Your task to perform on an android device: open app "Facebook" Image 0: 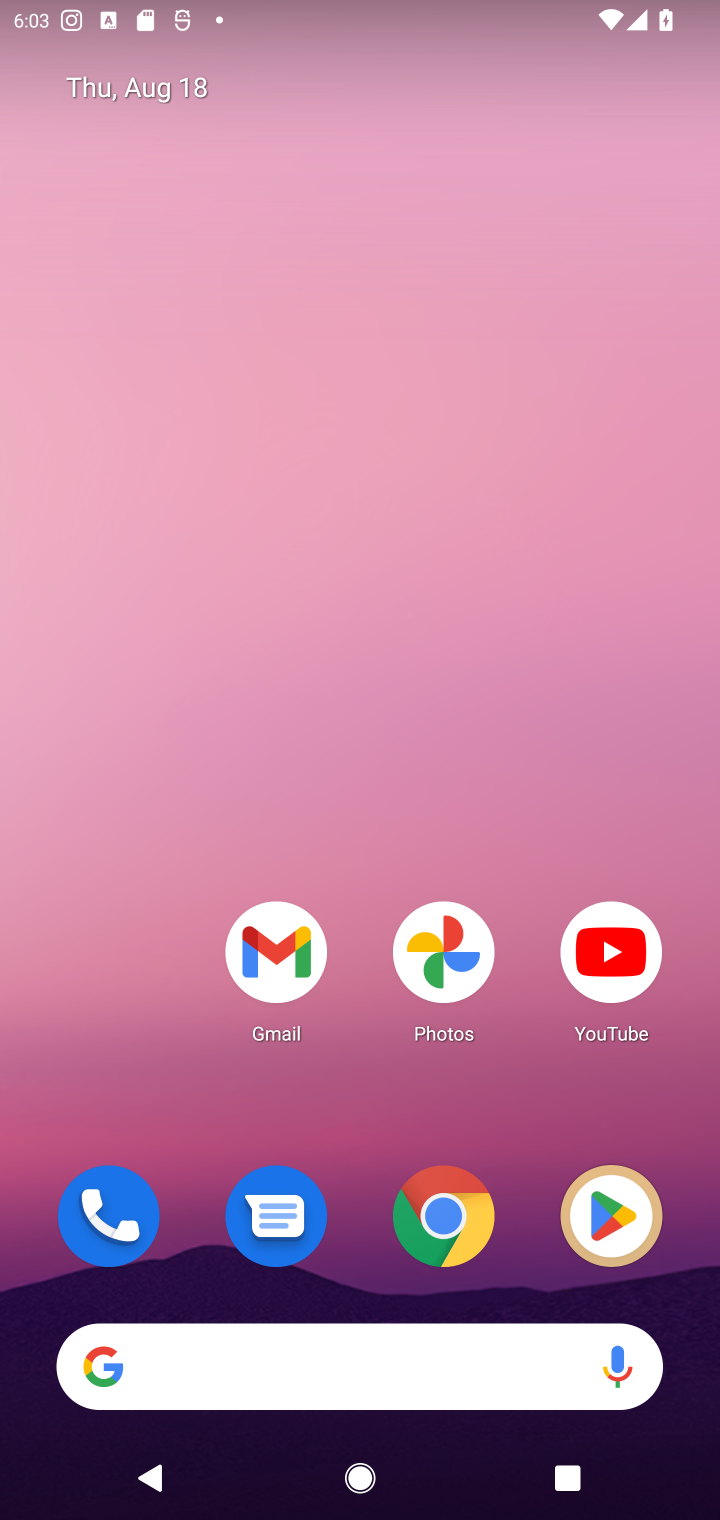
Step 0: click (589, 1186)
Your task to perform on an android device: open app "Facebook" Image 1: 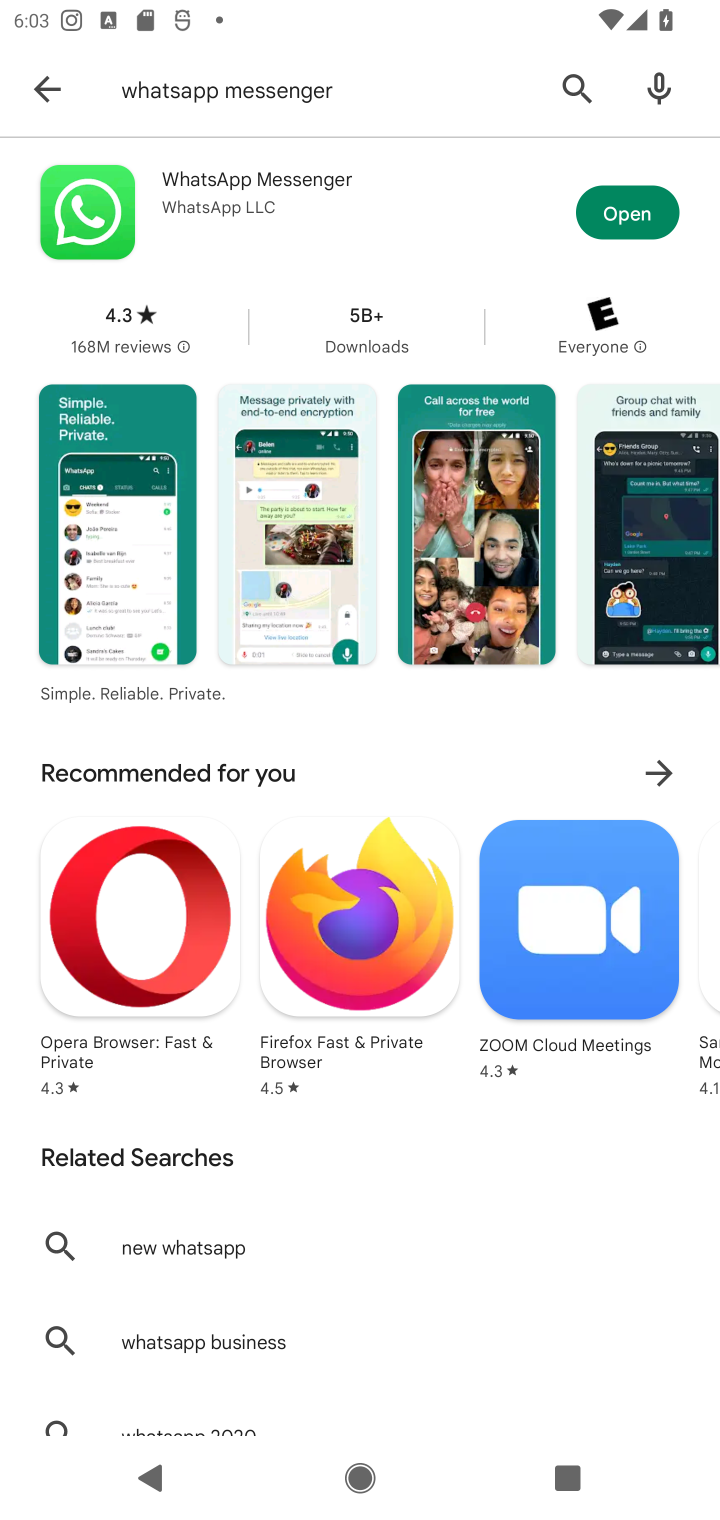
Step 1: click (575, 84)
Your task to perform on an android device: open app "Facebook" Image 2: 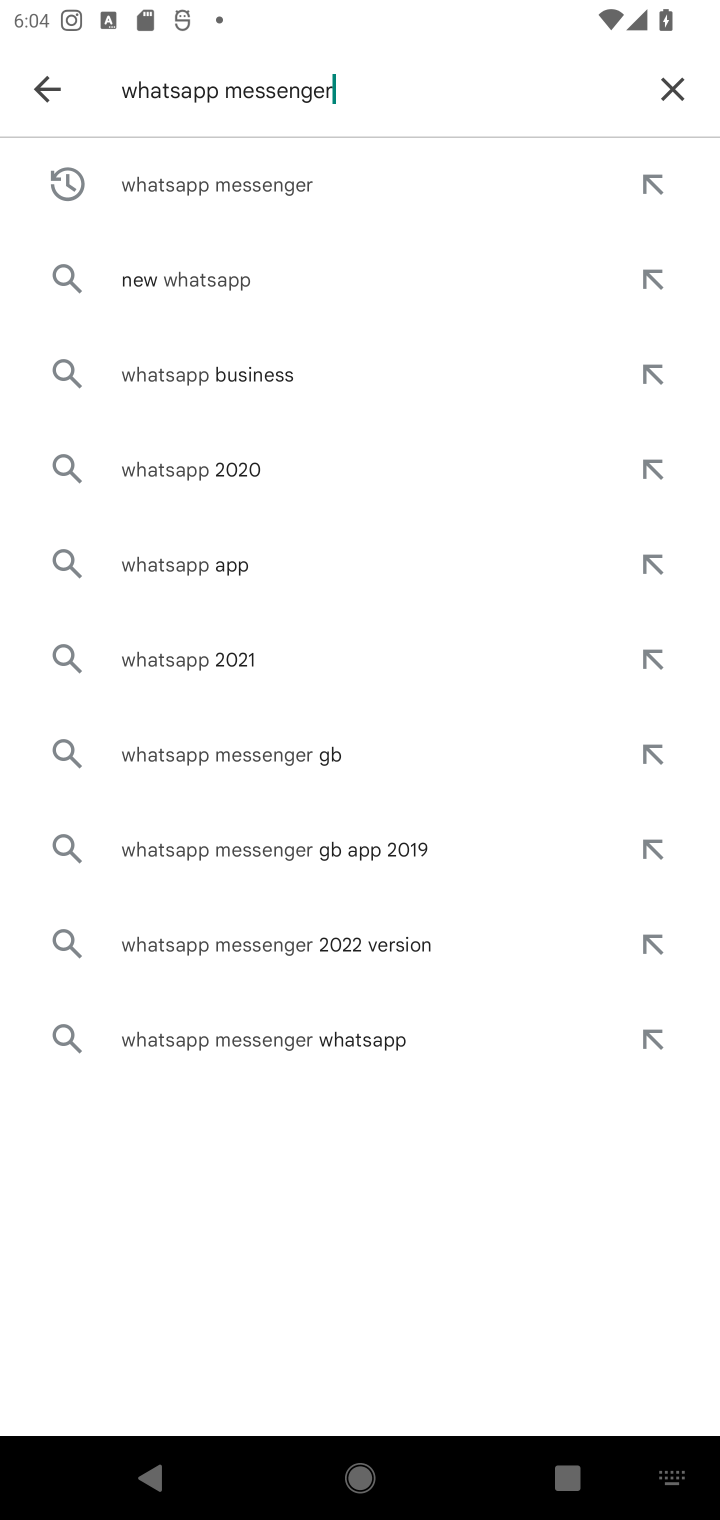
Step 2: click (663, 81)
Your task to perform on an android device: open app "Facebook" Image 3: 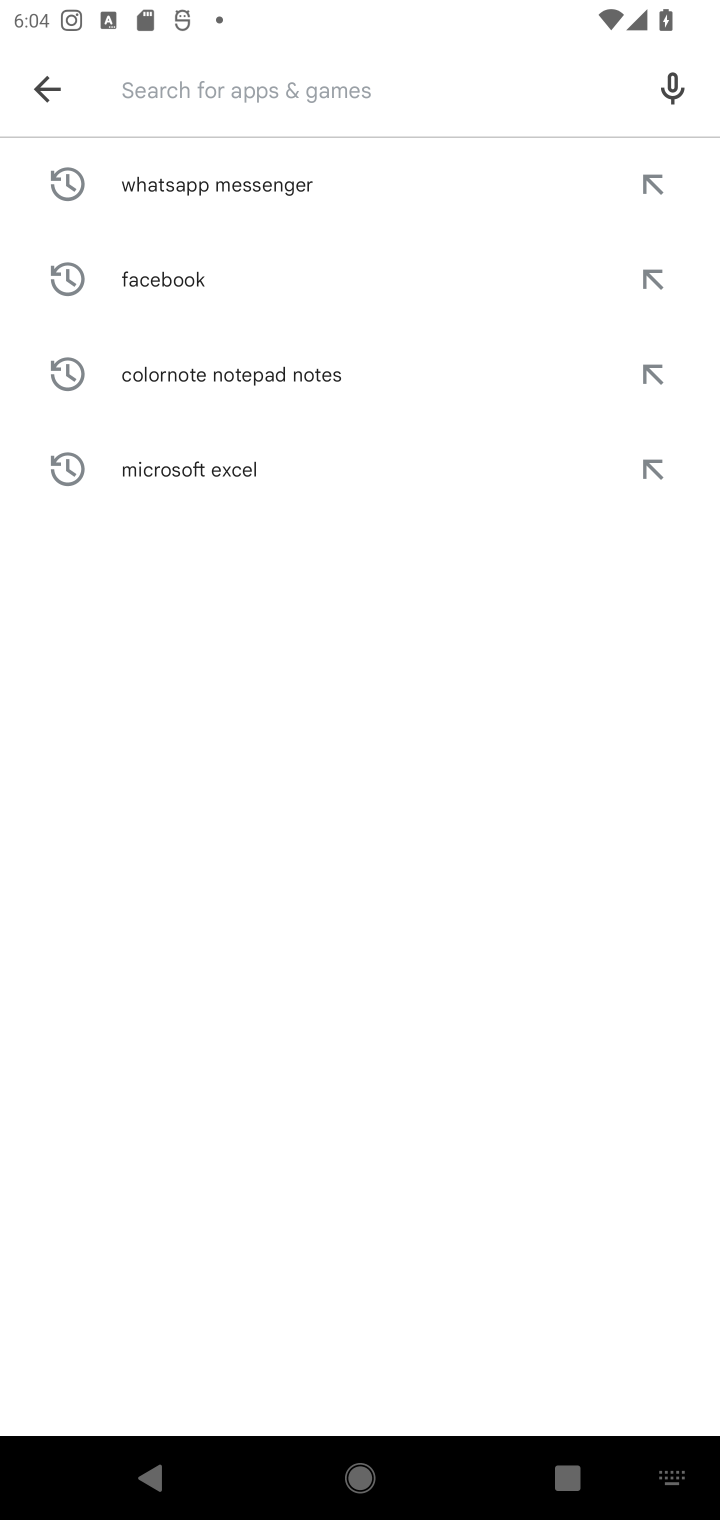
Step 3: type "Facebook"
Your task to perform on an android device: open app "Facebook" Image 4: 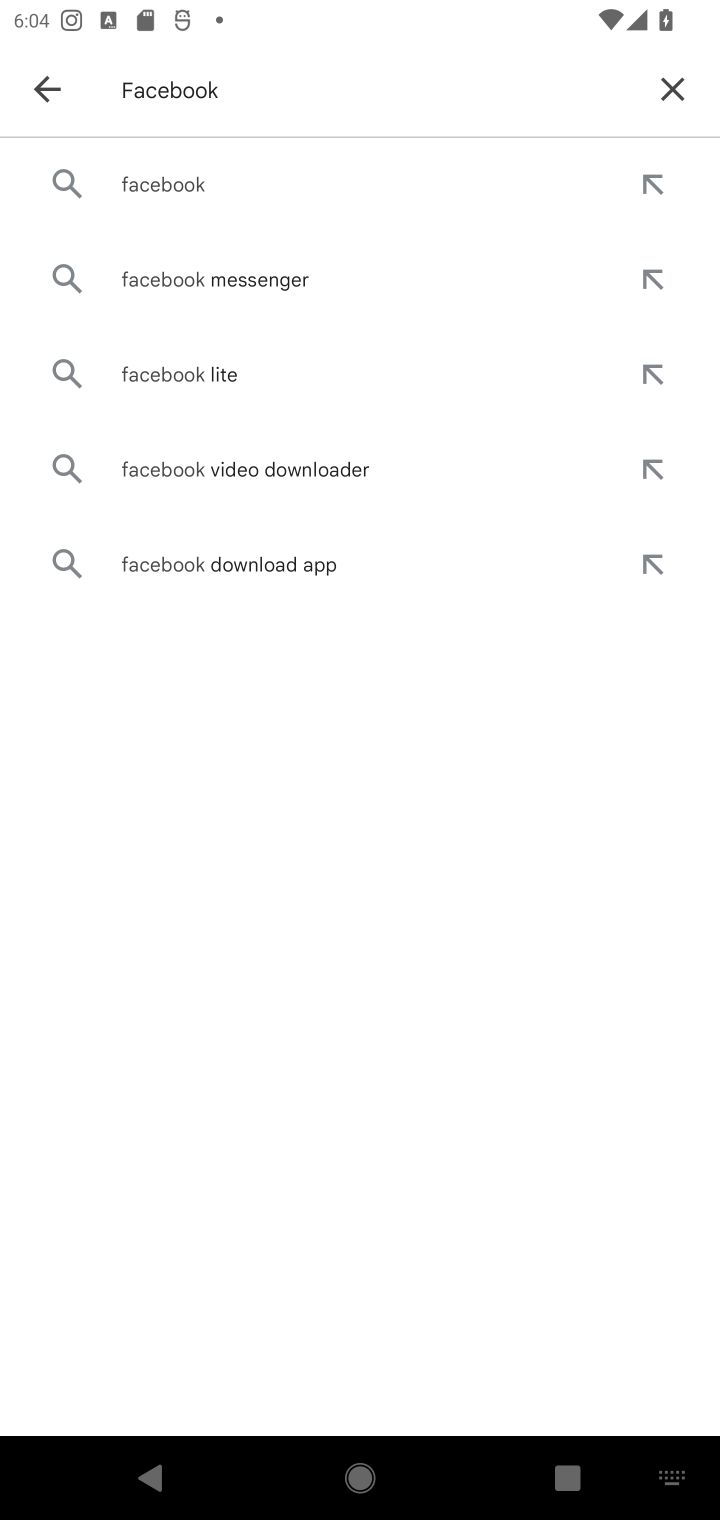
Step 4: click (188, 189)
Your task to perform on an android device: open app "Facebook" Image 5: 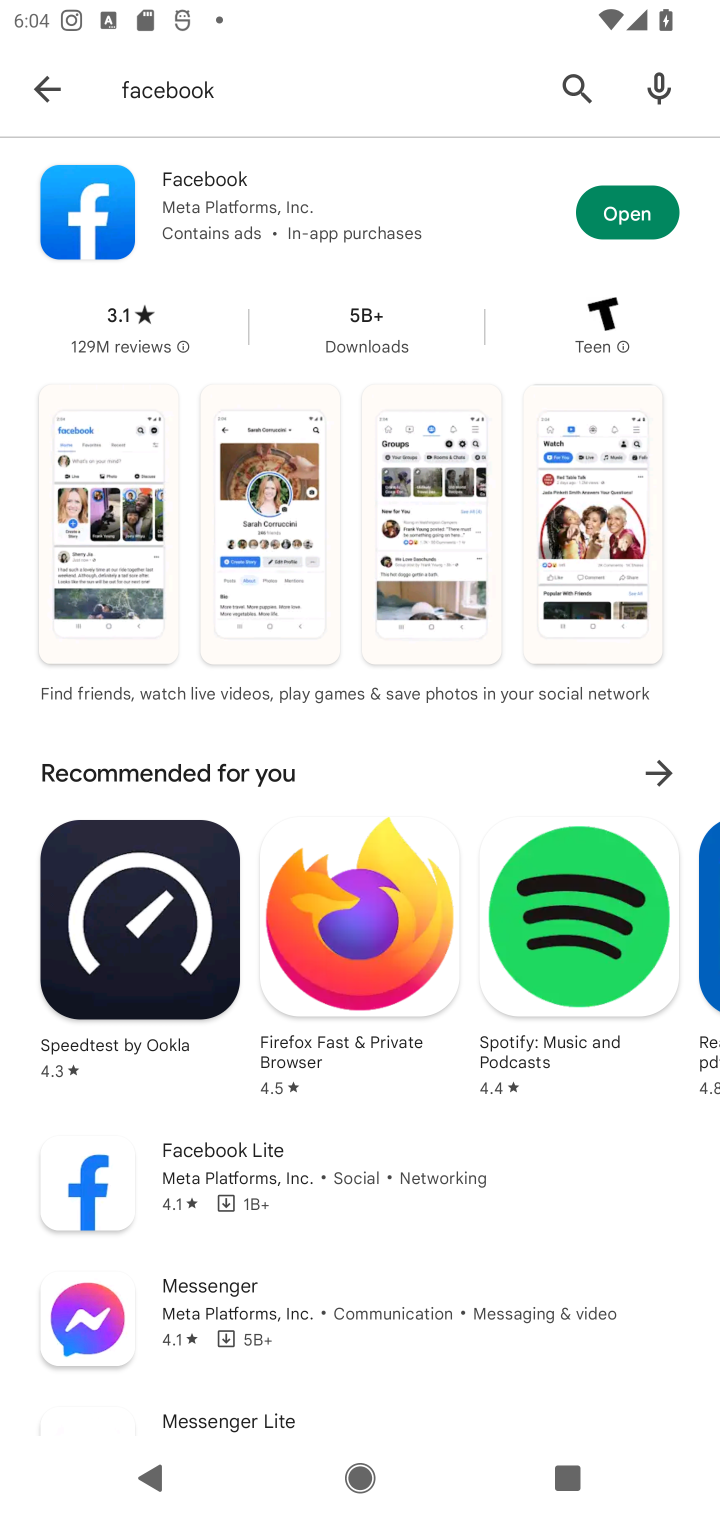
Step 5: click (640, 216)
Your task to perform on an android device: open app "Facebook" Image 6: 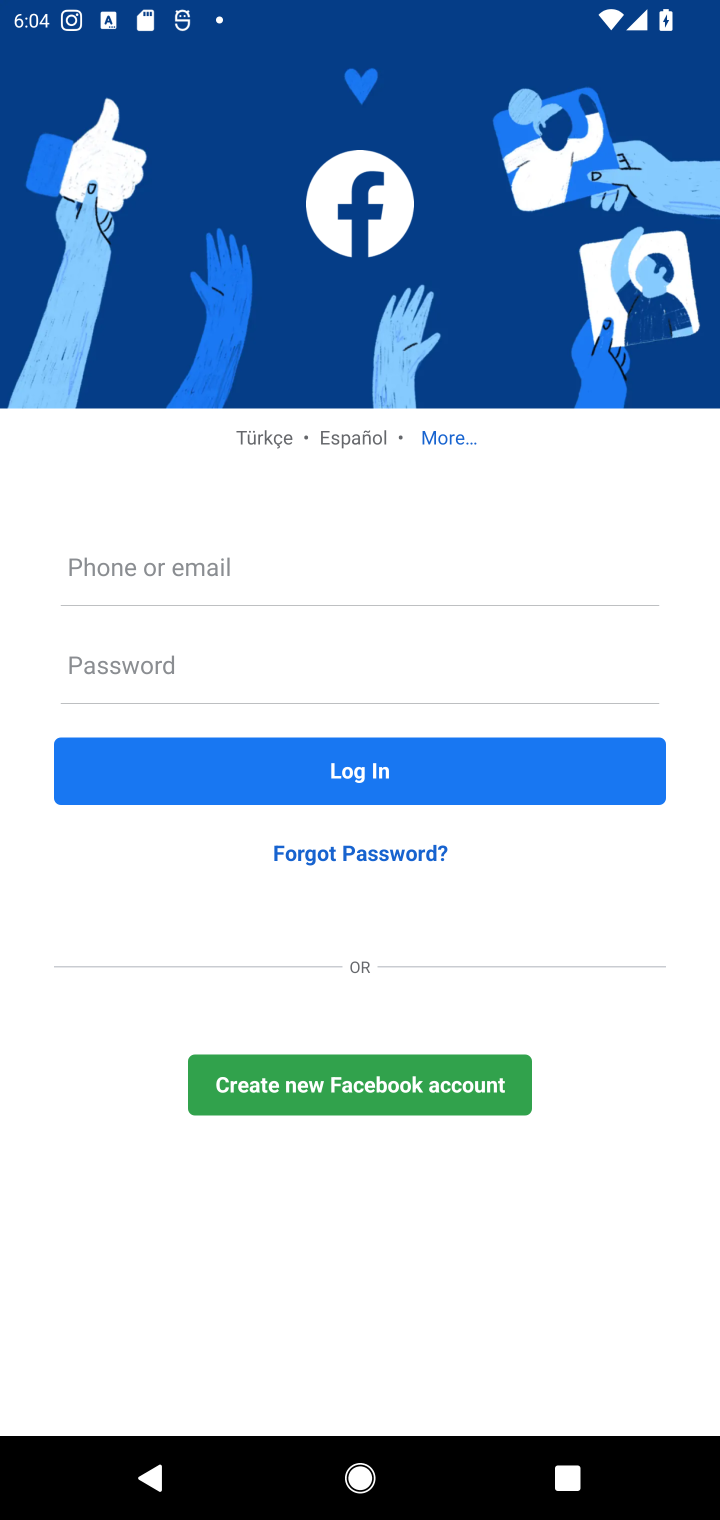
Step 6: task complete